Your task to perform on an android device: Go to internet settings Image 0: 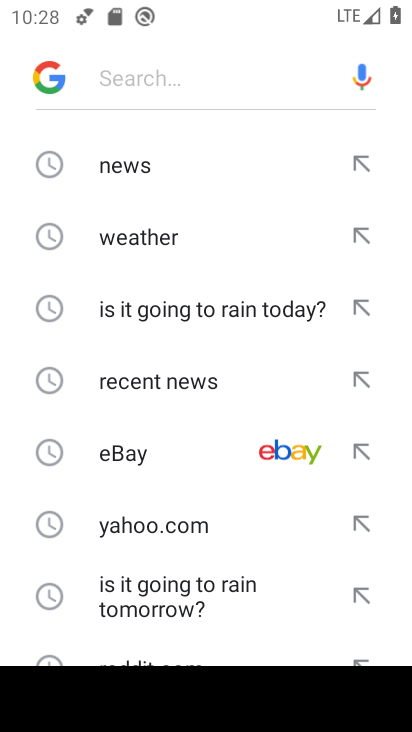
Step 0: press home button
Your task to perform on an android device: Go to internet settings Image 1: 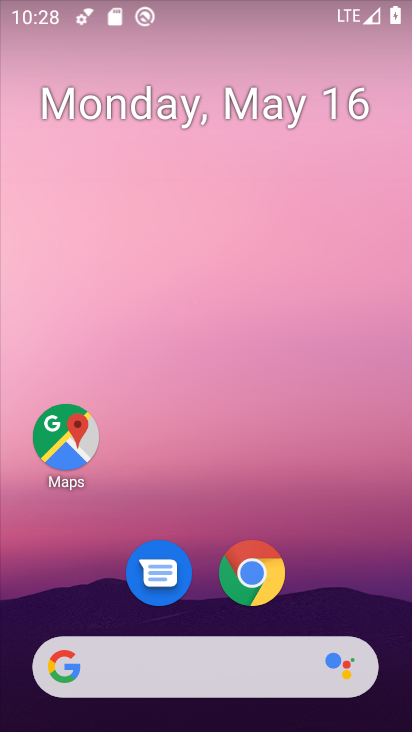
Step 1: drag from (325, 607) to (341, 181)
Your task to perform on an android device: Go to internet settings Image 2: 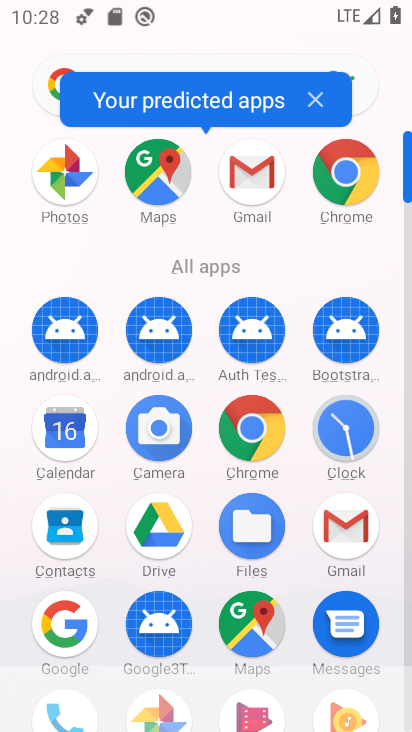
Step 2: drag from (262, 254) to (237, 17)
Your task to perform on an android device: Go to internet settings Image 3: 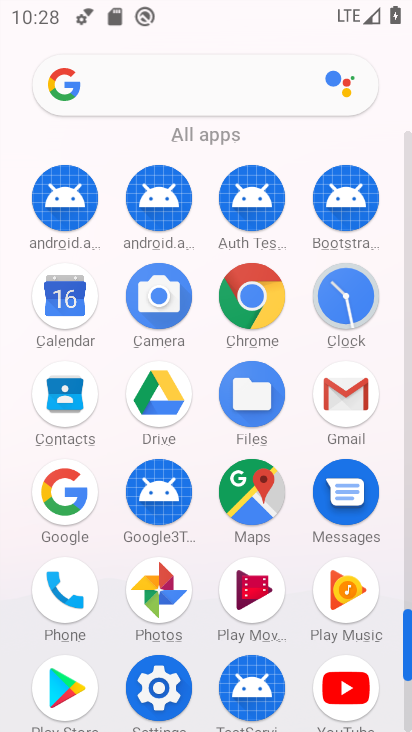
Step 3: click (170, 666)
Your task to perform on an android device: Go to internet settings Image 4: 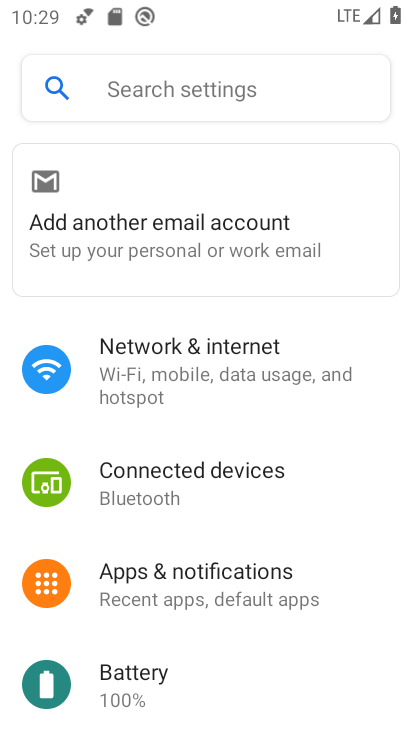
Step 4: click (231, 358)
Your task to perform on an android device: Go to internet settings Image 5: 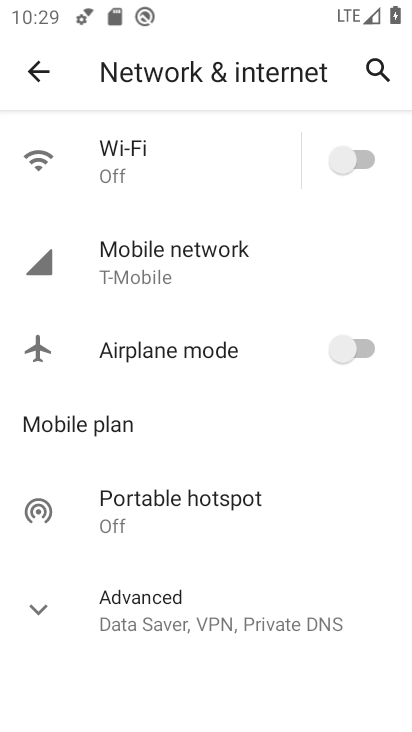
Step 5: task complete